Your task to perform on an android device: clear history in the chrome app Image 0: 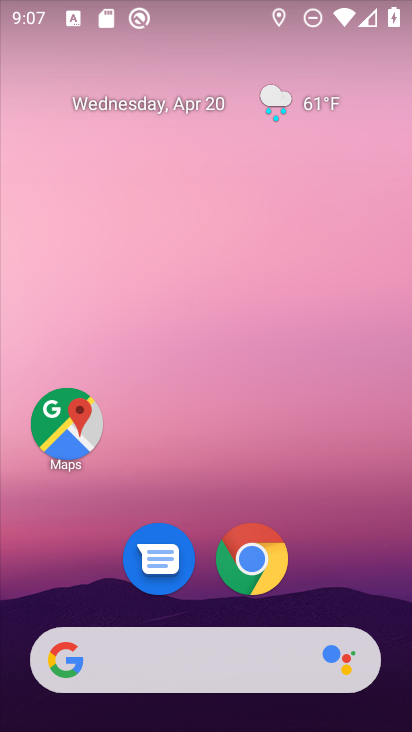
Step 0: click (253, 561)
Your task to perform on an android device: clear history in the chrome app Image 1: 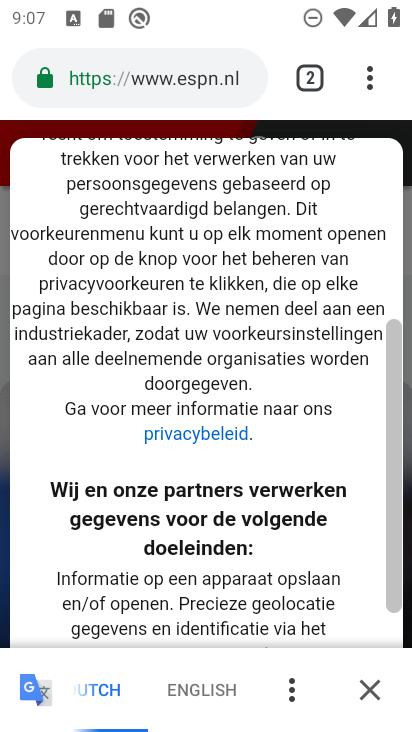
Step 1: click (364, 81)
Your task to perform on an android device: clear history in the chrome app Image 2: 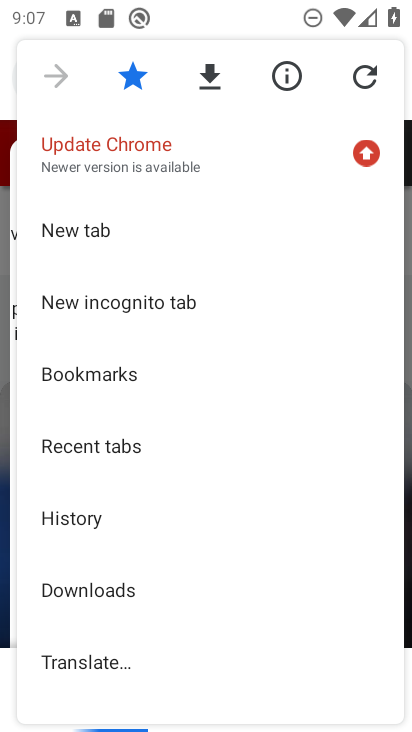
Step 2: drag from (213, 470) to (216, 223)
Your task to perform on an android device: clear history in the chrome app Image 3: 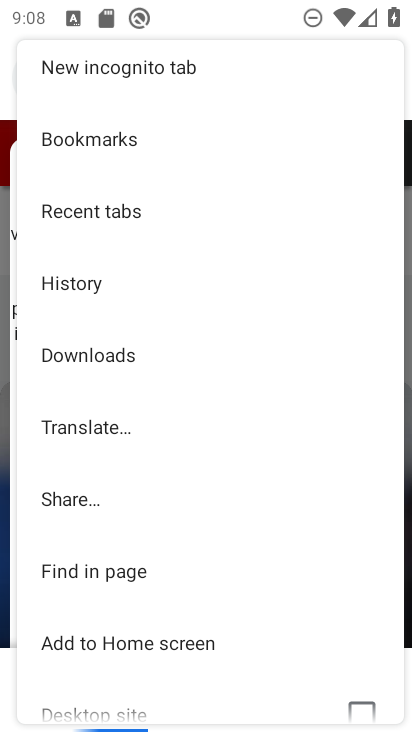
Step 3: click (82, 285)
Your task to perform on an android device: clear history in the chrome app Image 4: 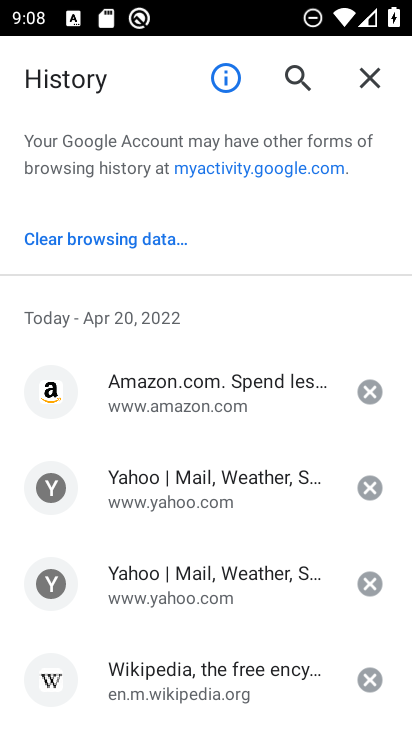
Step 4: click (70, 236)
Your task to perform on an android device: clear history in the chrome app Image 5: 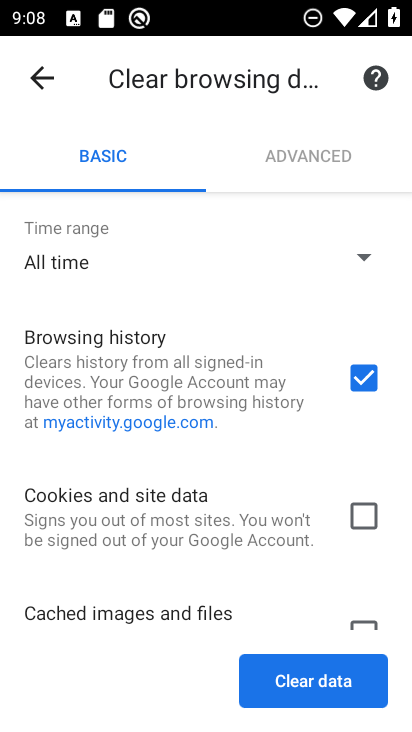
Step 5: click (320, 674)
Your task to perform on an android device: clear history in the chrome app Image 6: 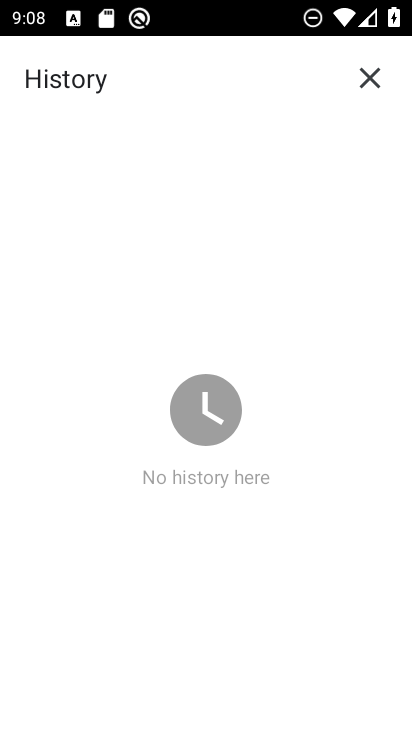
Step 6: task complete